Your task to perform on an android device: Set an alarm for 9am Image 0: 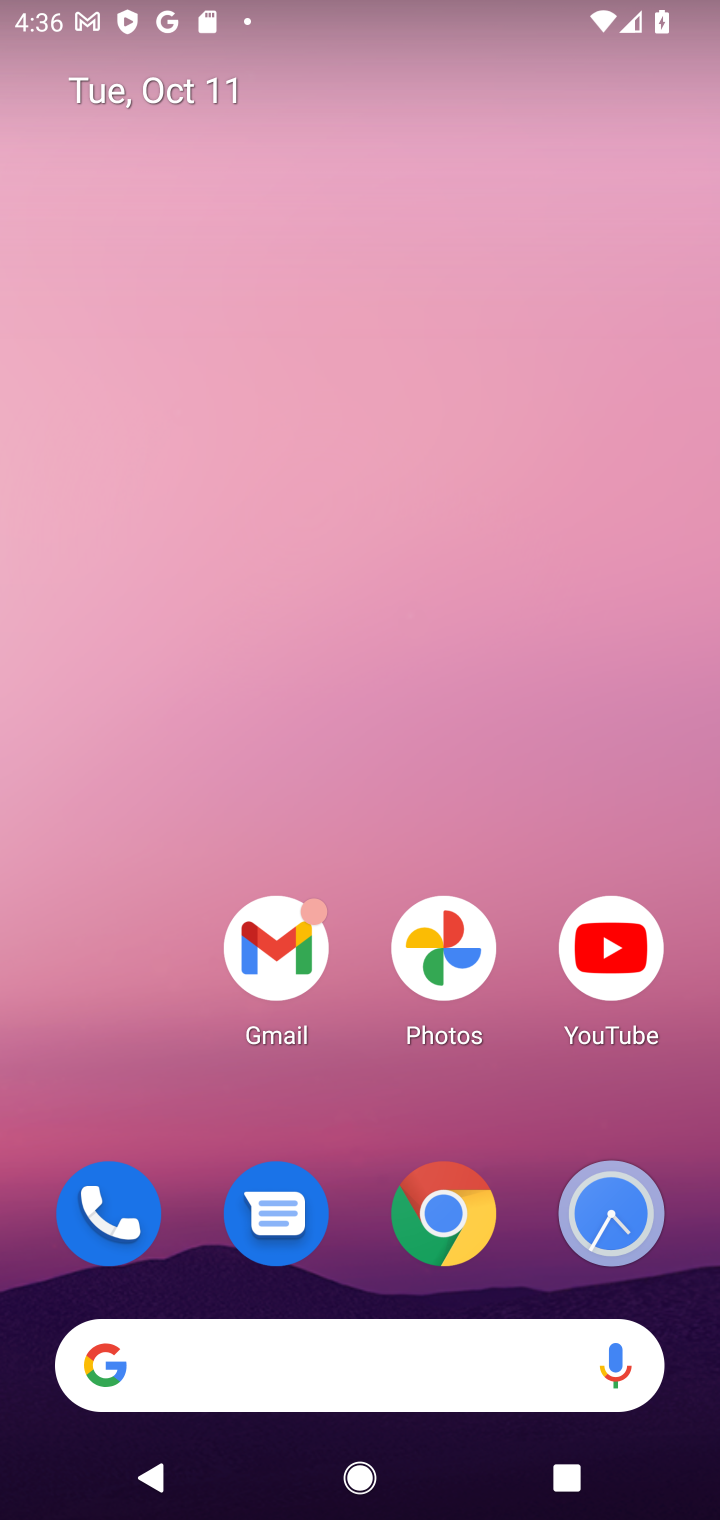
Step 0: click (607, 1229)
Your task to perform on an android device: Set an alarm for 9am Image 1: 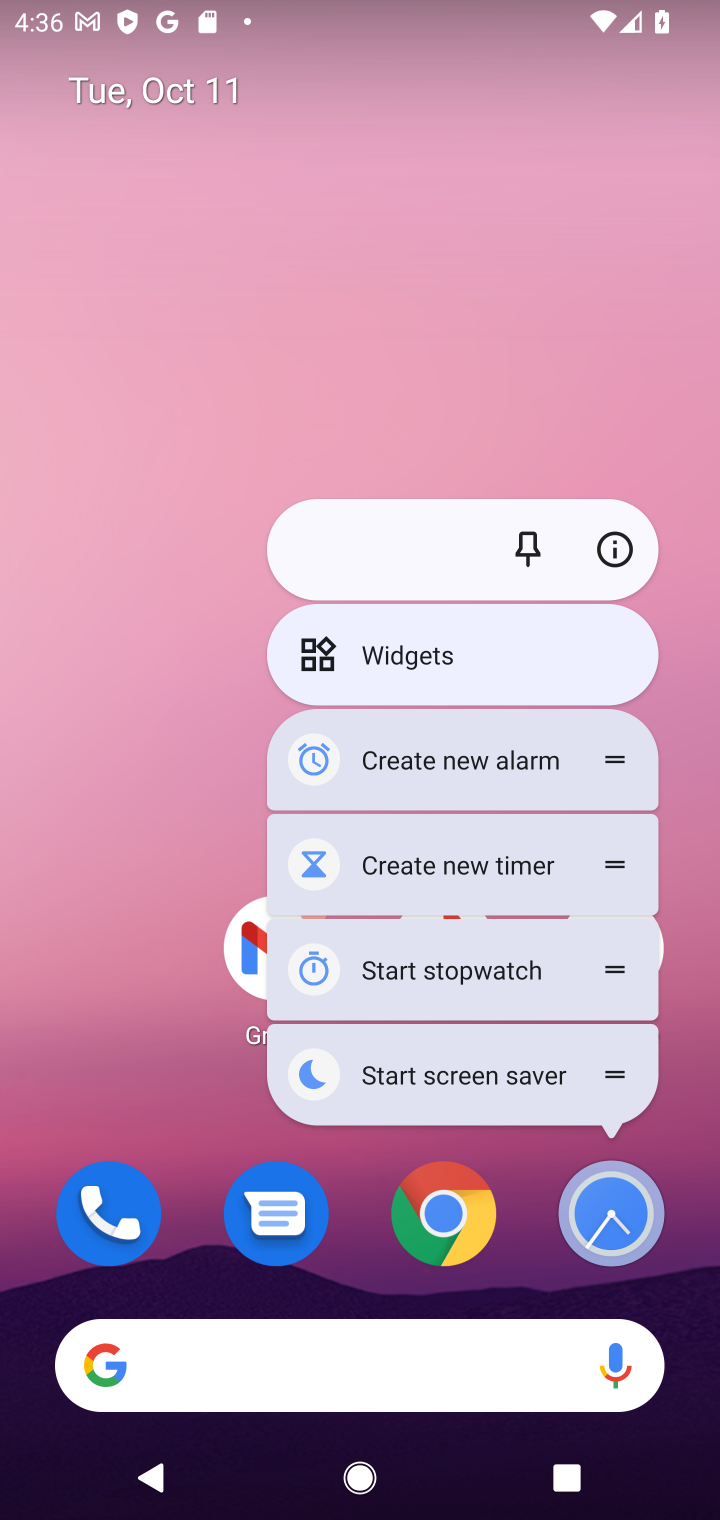
Step 1: click (605, 1227)
Your task to perform on an android device: Set an alarm for 9am Image 2: 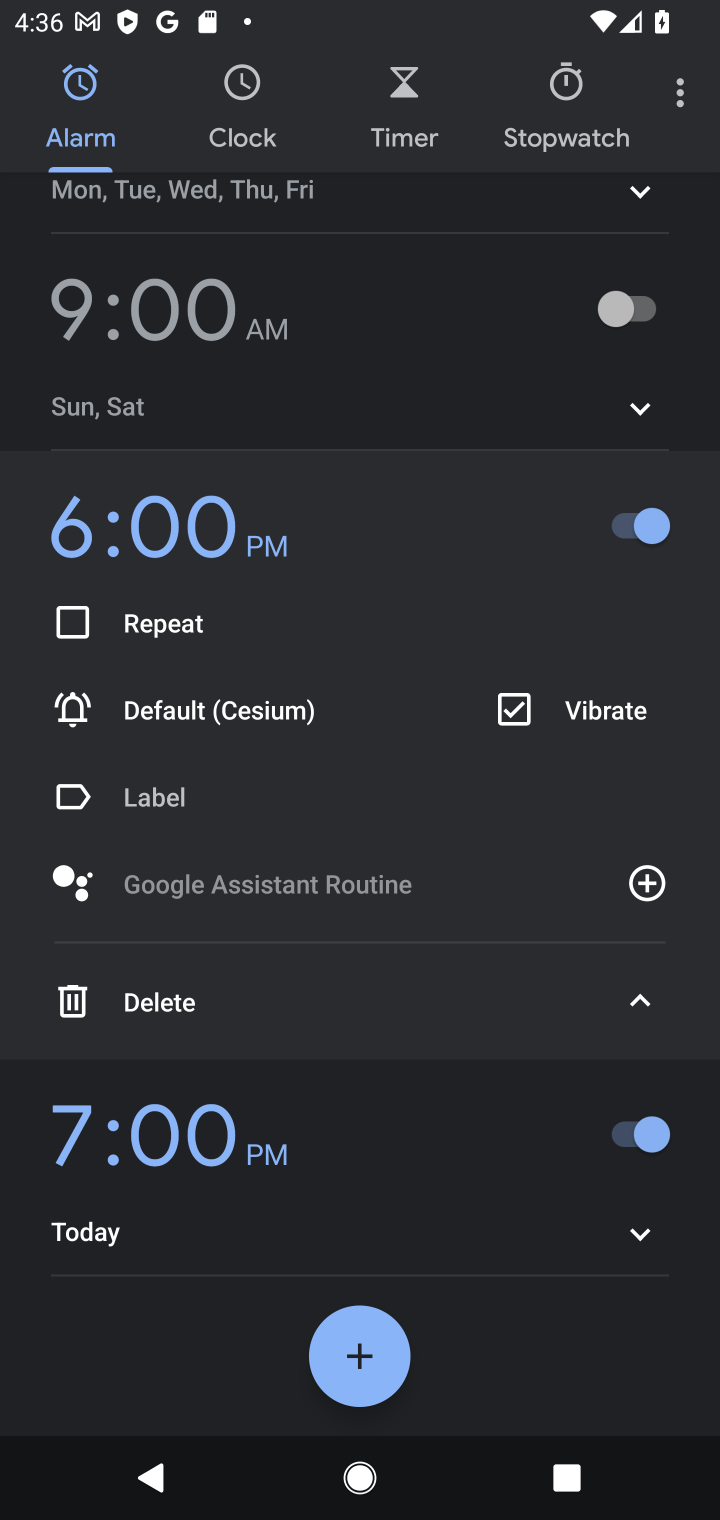
Step 2: click (361, 1356)
Your task to perform on an android device: Set an alarm for 9am Image 3: 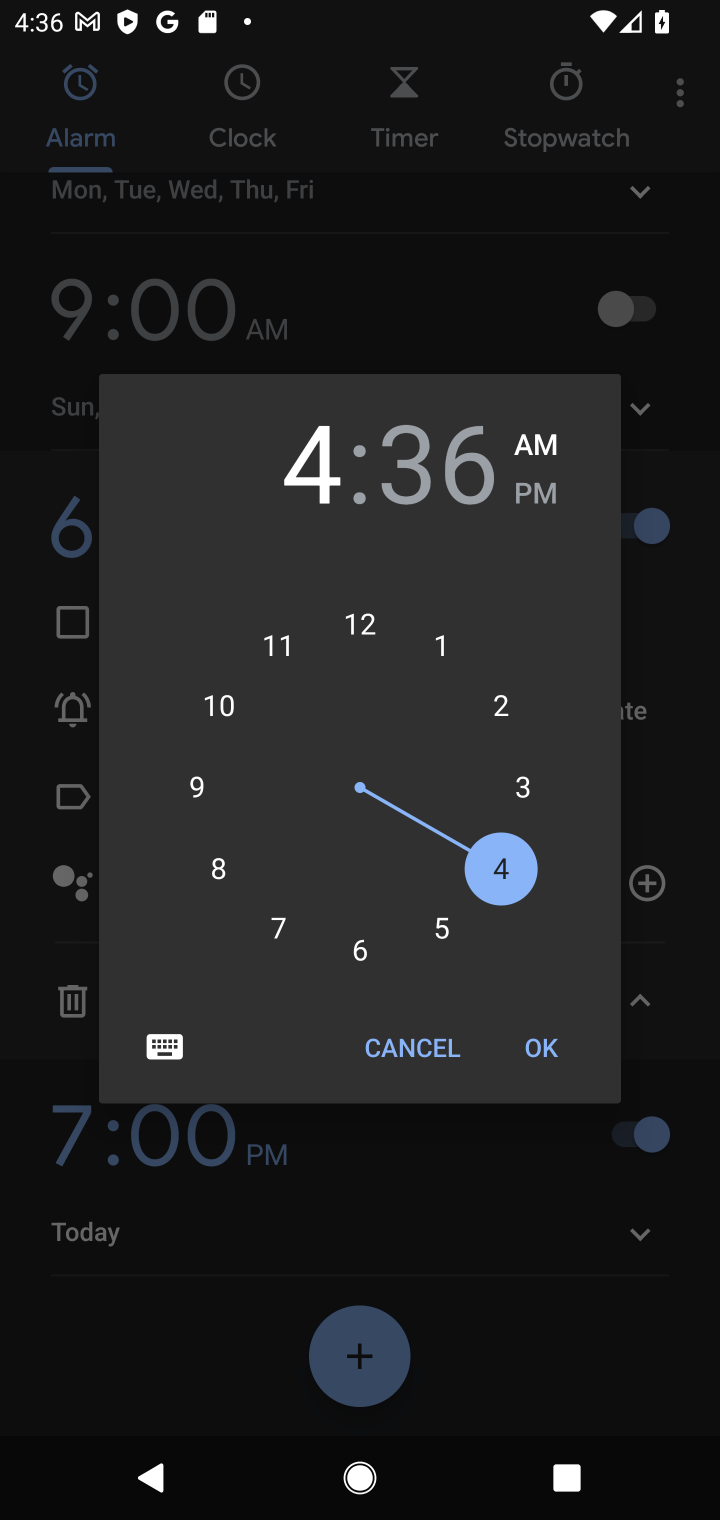
Step 3: click (198, 804)
Your task to perform on an android device: Set an alarm for 9am Image 4: 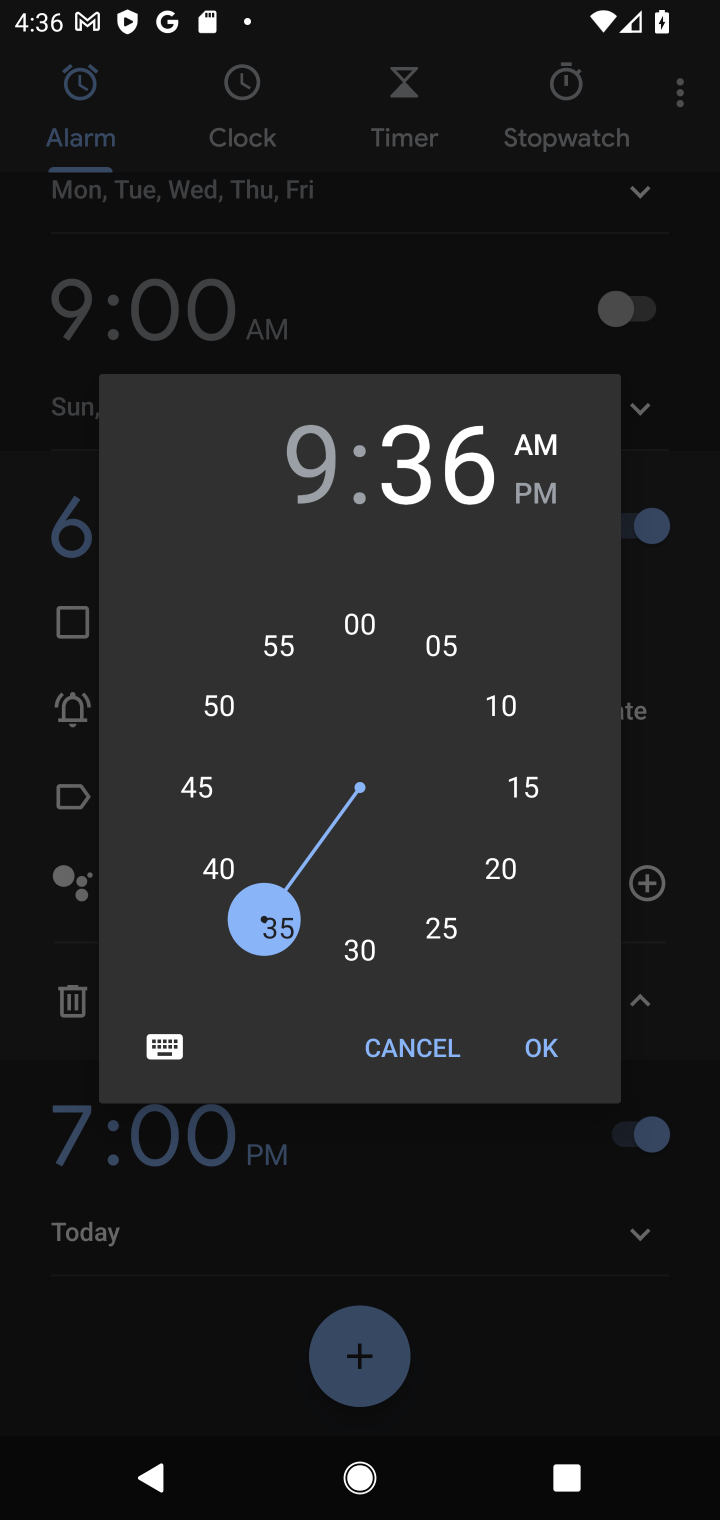
Step 4: click (363, 629)
Your task to perform on an android device: Set an alarm for 9am Image 5: 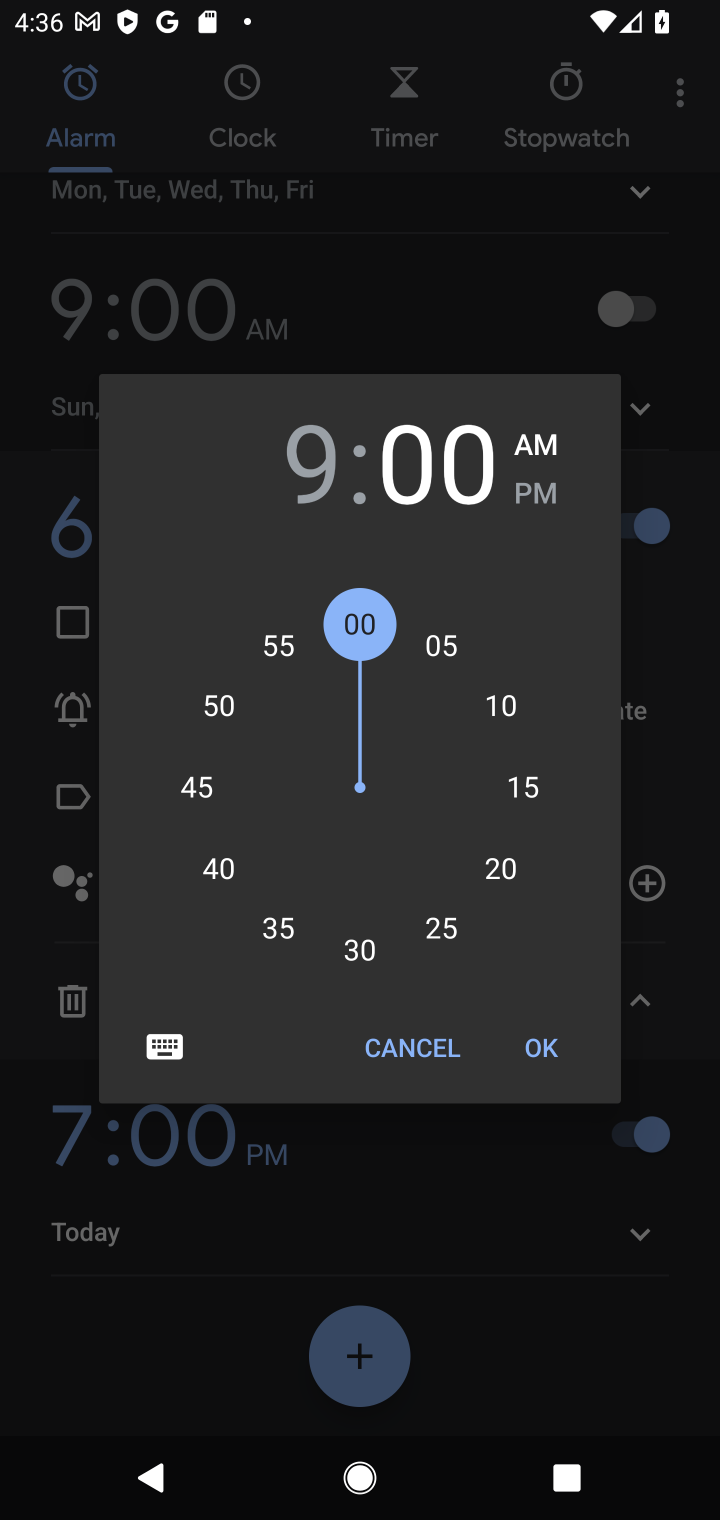
Step 5: click (530, 1045)
Your task to perform on an android device: Set an alarm for 9am Image 6: 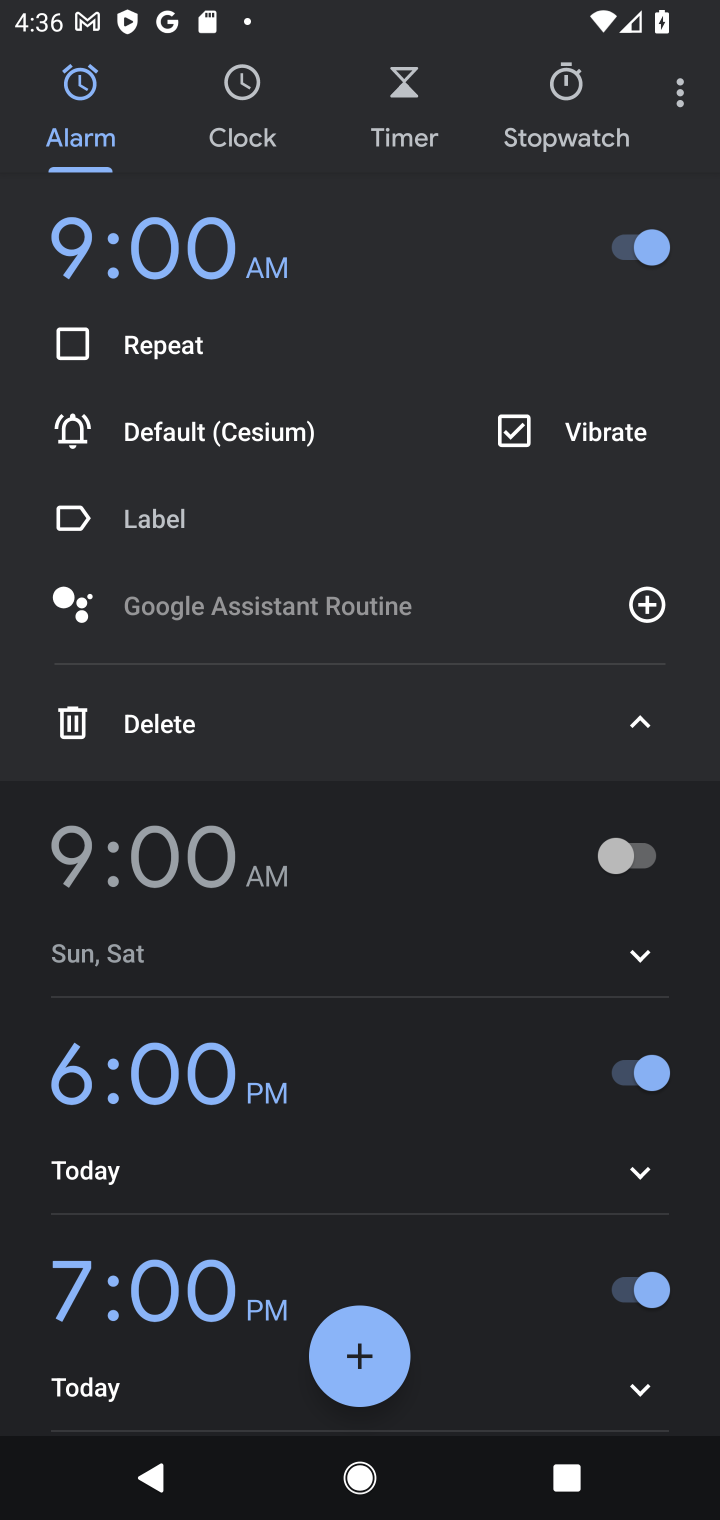
Step 6: task complete